Your task to perform on an android device: Search for a 1/4" hex shank drill bit on Lowe's. Image 0: 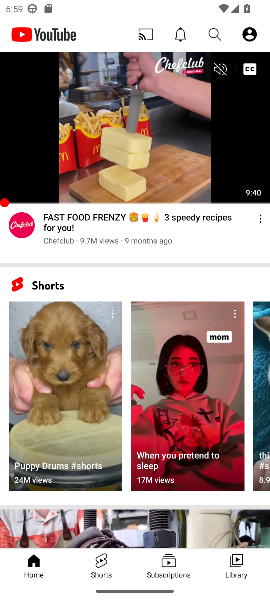
Step 0: press home button
Your task to perform on an android device: Search for a 1/4" hex shank drill bit on Lowe's. Image 1: 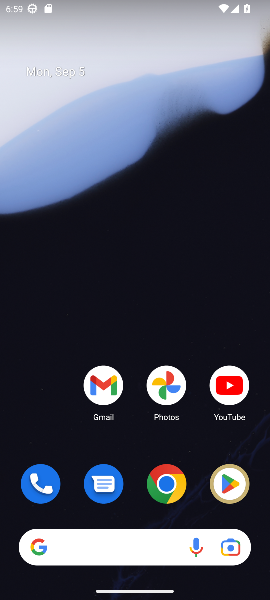
Step 1: drag from (81, 525) to (216, 51)
Your task to perform on an android device: Search for a 1/4" hex shank drill bit on Lowe's. Image 2: 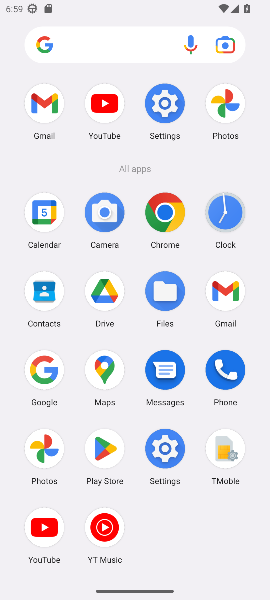
Step 2: click (162, 217)
Your task to perform on an android device: Search for a 1/4" hex shank drill bit on Lowe's. Image 3: 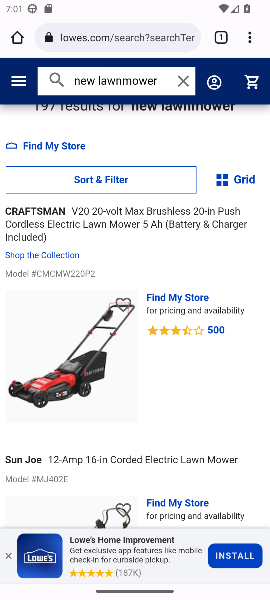
Step 3: click (133, 27)
Your task to perform on an android device: Search for a 1/4" hex shank drill bit on Lowe's. Image 4: 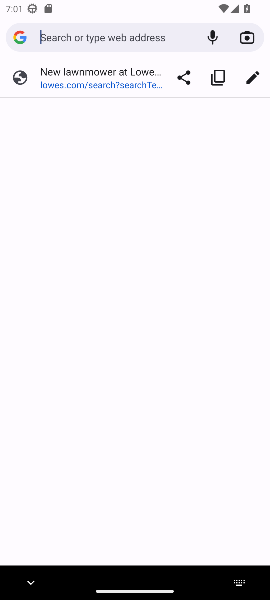
Step 4: press enter
Your task to perform on an android device: Search for a 1/4" hex shank drill bit on Lowe's. Image 5: 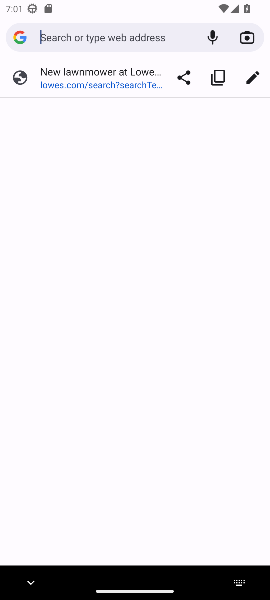
Step 5: type "a 1/4" hex shank drill bit on Lowe's."
Your task to perform on an android device: Search for a 1/4" hex shank drill bit on Lowe's. Image 6: 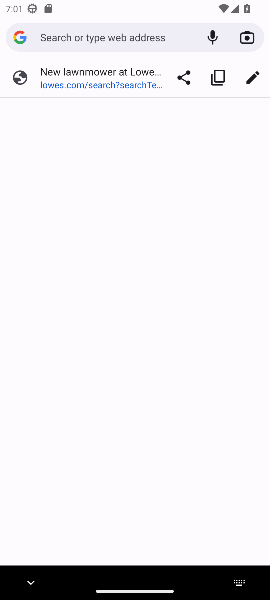
Step 6: type "a 1/4" hex shank drill bit on Lowe's."
Your task to perform on an android device: Search for a 1/4" hex shank drill bit on Lowe's. Image 7: 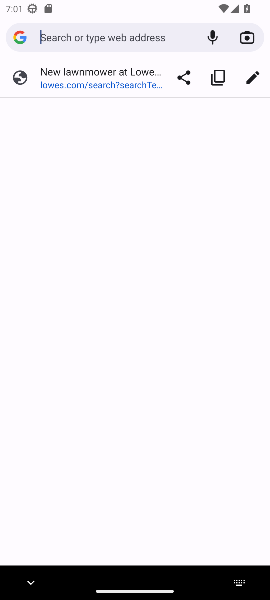
Step 7: press enter
Your task to perform on an android device: Search for a 1/4" hex shank drill bit on Lowe's. Image 8: 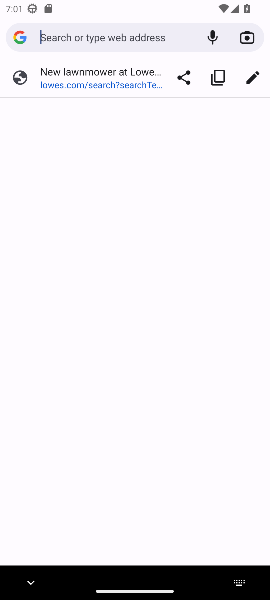
Step 8: press enter
Your task to perform on an android device: Search for a 1/4" hex shank drill bit on Lowe's. Image 9: 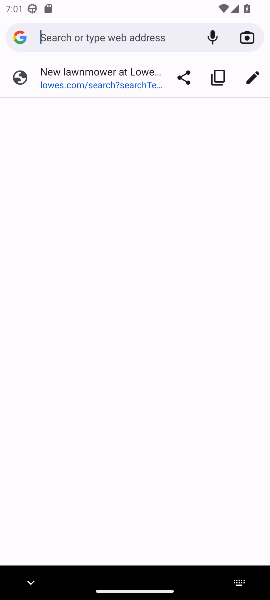
Step 9: type "a 1/4" hex shank drill bit on Lowe's."
Your task to perform on an android device: Search for a 1/4" hex shank drill bit on Lowe's. Image 10: 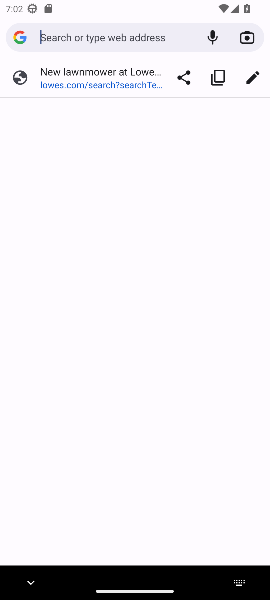
Step 10: press enter
Your task to perform on an android device: Search for a 1/4" hex shank drill bit on Lowe's. Image 11: 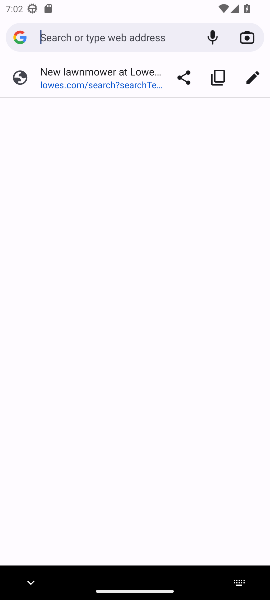
Step 11: type "a 1/4" hex shank drill bit on Lowe's."
Your task to perform on an android device: Search for a 1/4" hex shank drill bit on Lowe's. Image 12: 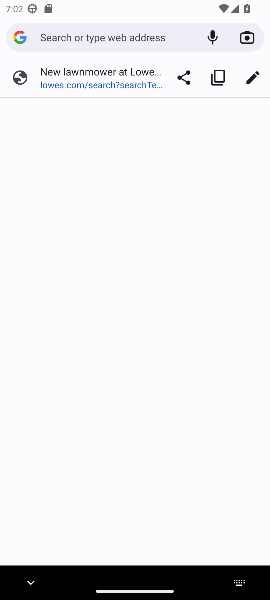
Step 12: press enter
Your task to perform on an android device: Search for a 1/4" hex shank drill bit on Lowe's. Image 13: 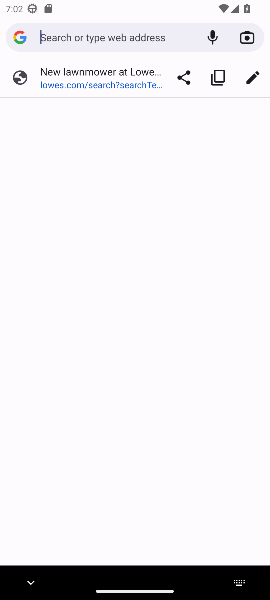
Step 13: type "a 1/4" hex shank drill bit on Lowe's."
Your task to perform on an android device: Search for a 1/4" hex shank drill bit on Lowe's. Image 14: 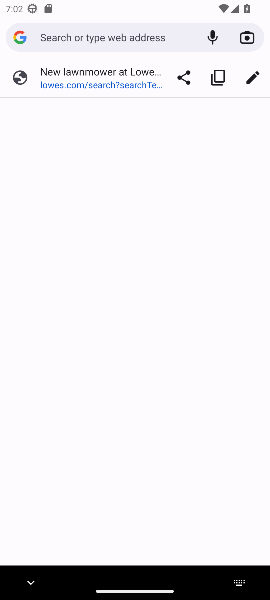
Step 14: press enter
Your task to perform on an android device: Search for a 1/4" hex shank drill bit on Lowe's. Image 15: 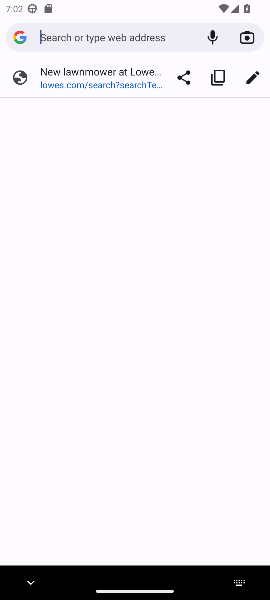
Step 15: click (100, 32)
Your task to perform on an android device: Search for a 1/4" hex shank drill bit on Lowe's. Image 16: 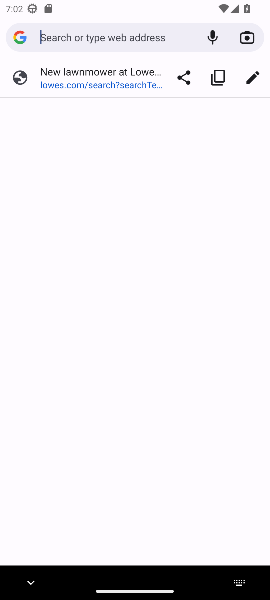
Step 16: task complete